Your task to perform on an android device: set the stopwatch Image 0: 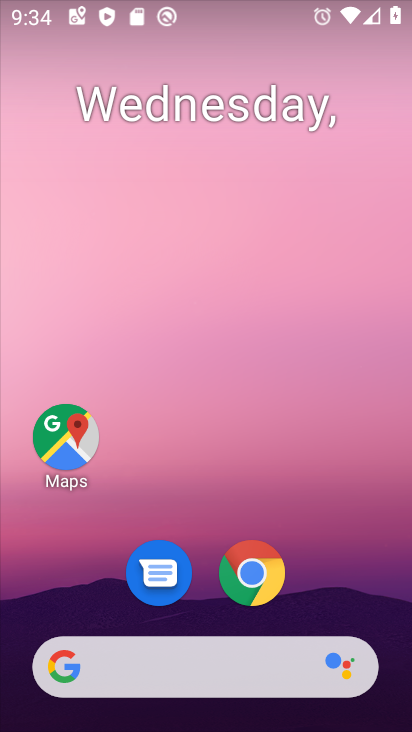
Step 0: drag from (334, 609) to (336, 177)
Your task to perform on an android device: set the stopwatch Image 1: 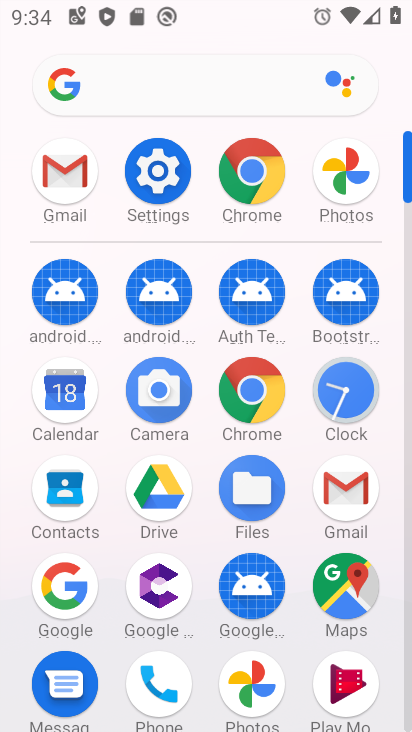
Step 1: click (340, 398)
Your task to perform on an android device: set the stopwatch Image 2: 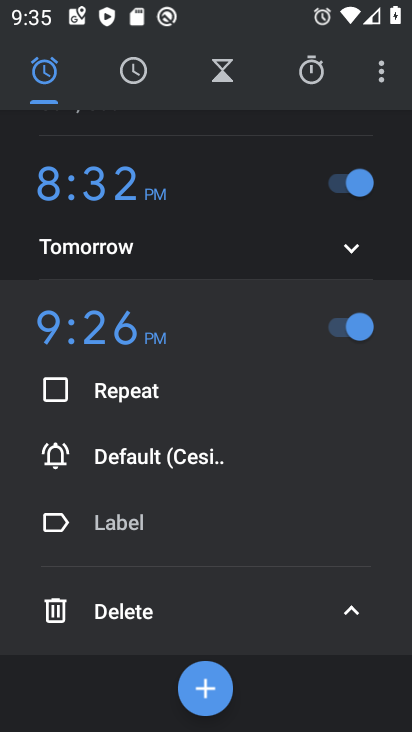
Step 2: click (323, 80)
Your task to perform on an android device: set the stopwatch Image 3: 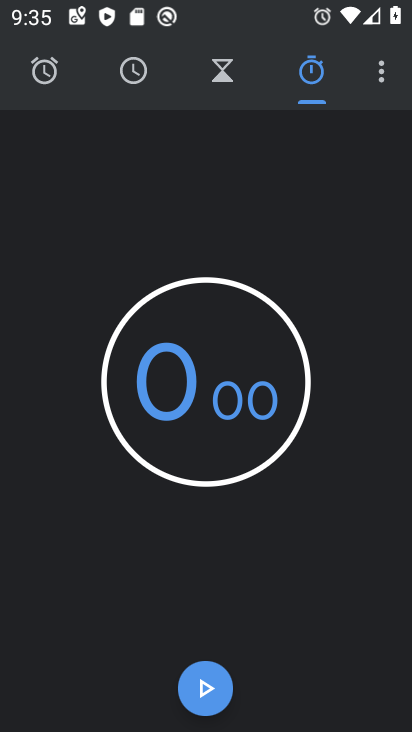
Step 3: click (218, 688)
Your task to perform on an android device: set the stopwatch Image 4: 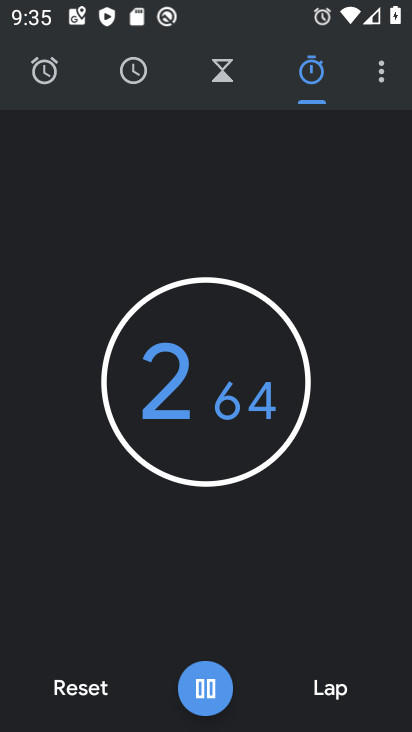
Step 4: task complete